Your task to perform on an android device: turn off improve location accuracy Image 0: 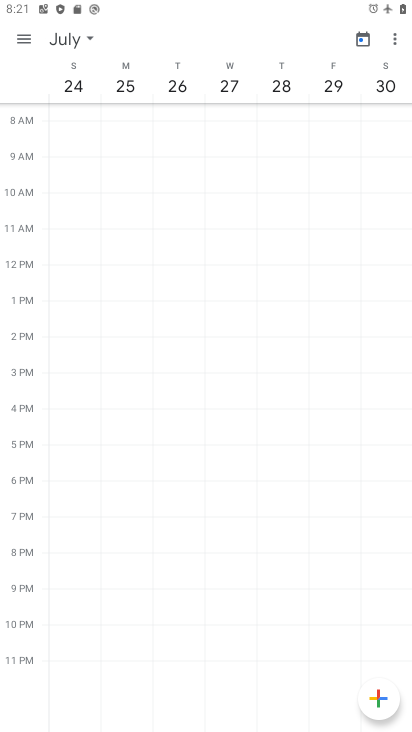
Step 0: press home button
Your task to perform on an android device: turn off improve location accuracy Image 1: 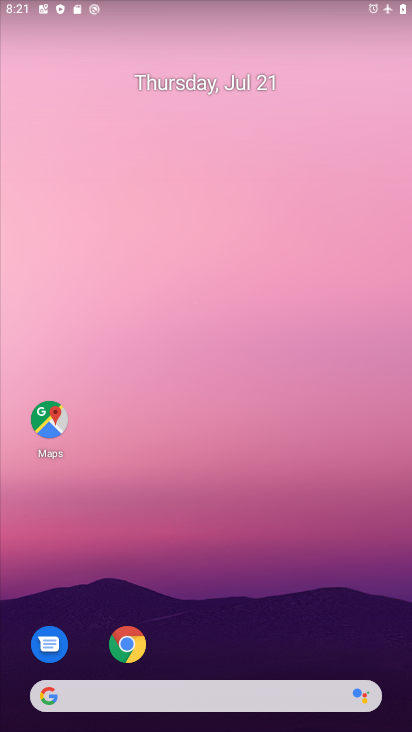
Step 1: drag from (228, 660) to (168, 277)
Your task to perform on an android device: turn off improve location accuracy Image 2: 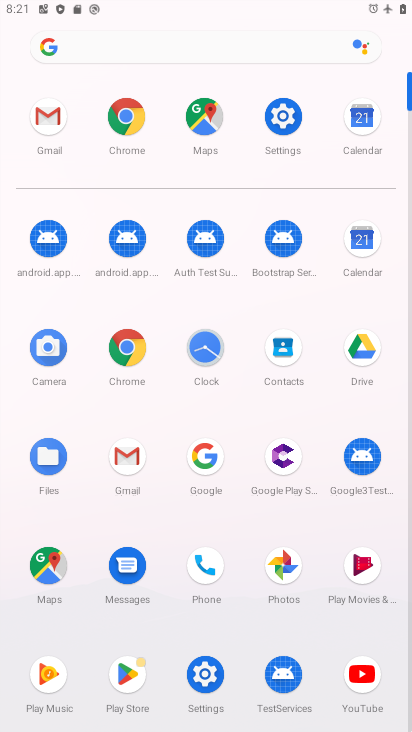
Step 2: click (284, 112)
Your task to perform on an android device: turn off improve location accuracy Image 3: 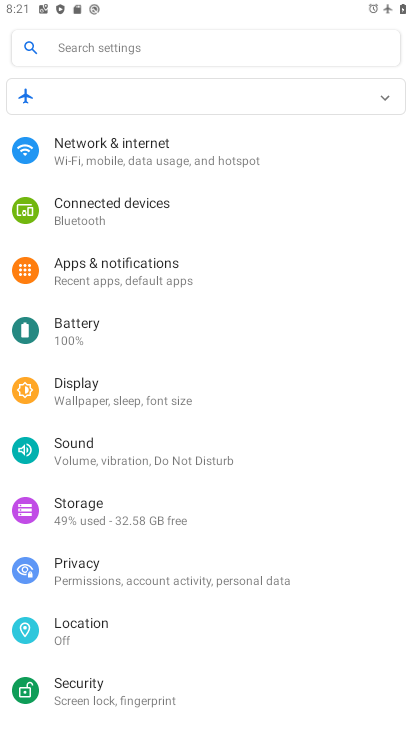
Step 3: click (110, 629)
Your task to perform on an android device: turn off improve location accuracy Image 4: 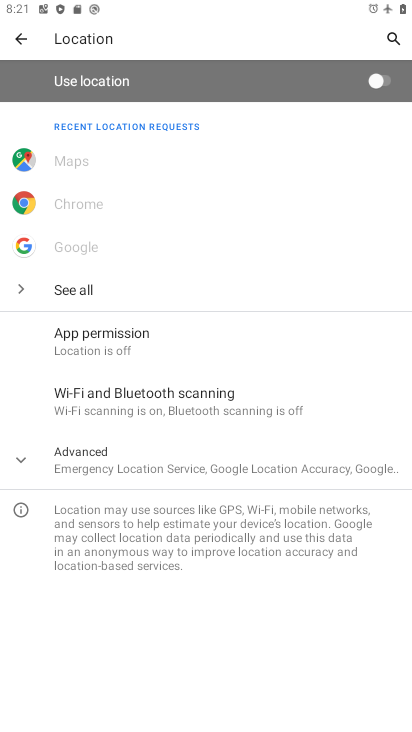
Step 4: click (137, 463)
Your task to perform on an android device: turn off improve location accuracy Image 5: 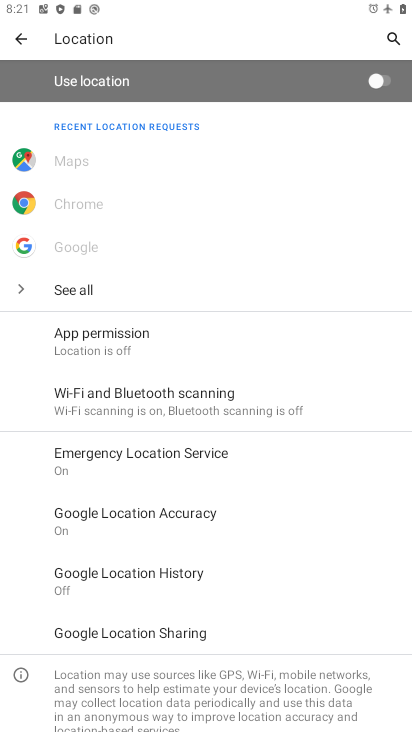
Step 5: click (187, 514)
Your task to perform on an android device: turn off improve location accuracy Image 6: 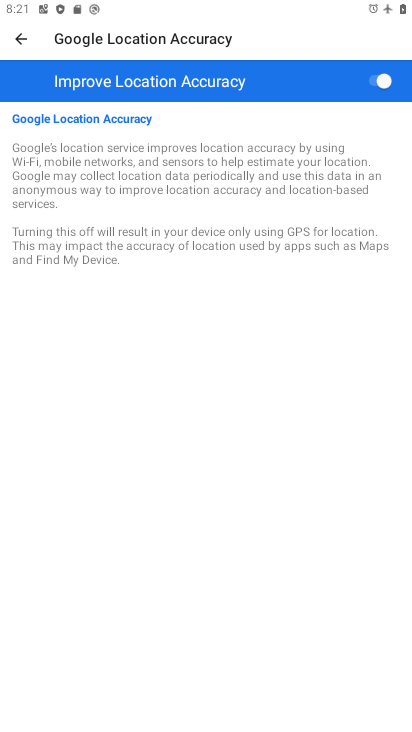
Step 6: click (368, 79)
Your task to perform on an android device: turn off improve location accuracy Image 7: 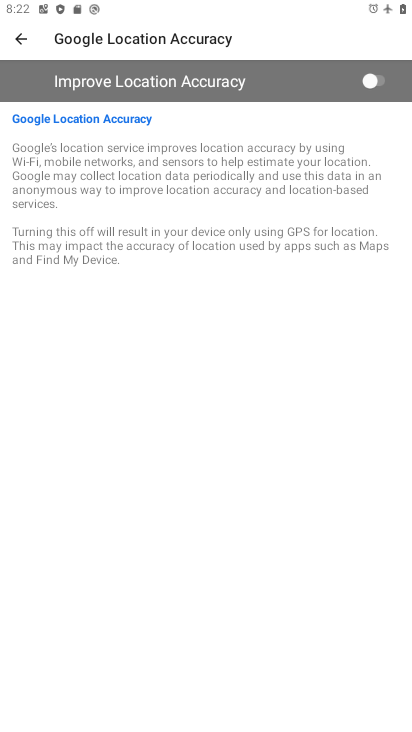
Step 7: task complete